Your task to perform on an android device: open app "Fetch Rewards" (install if not already installed), go to login, and select forgot password Image 0: 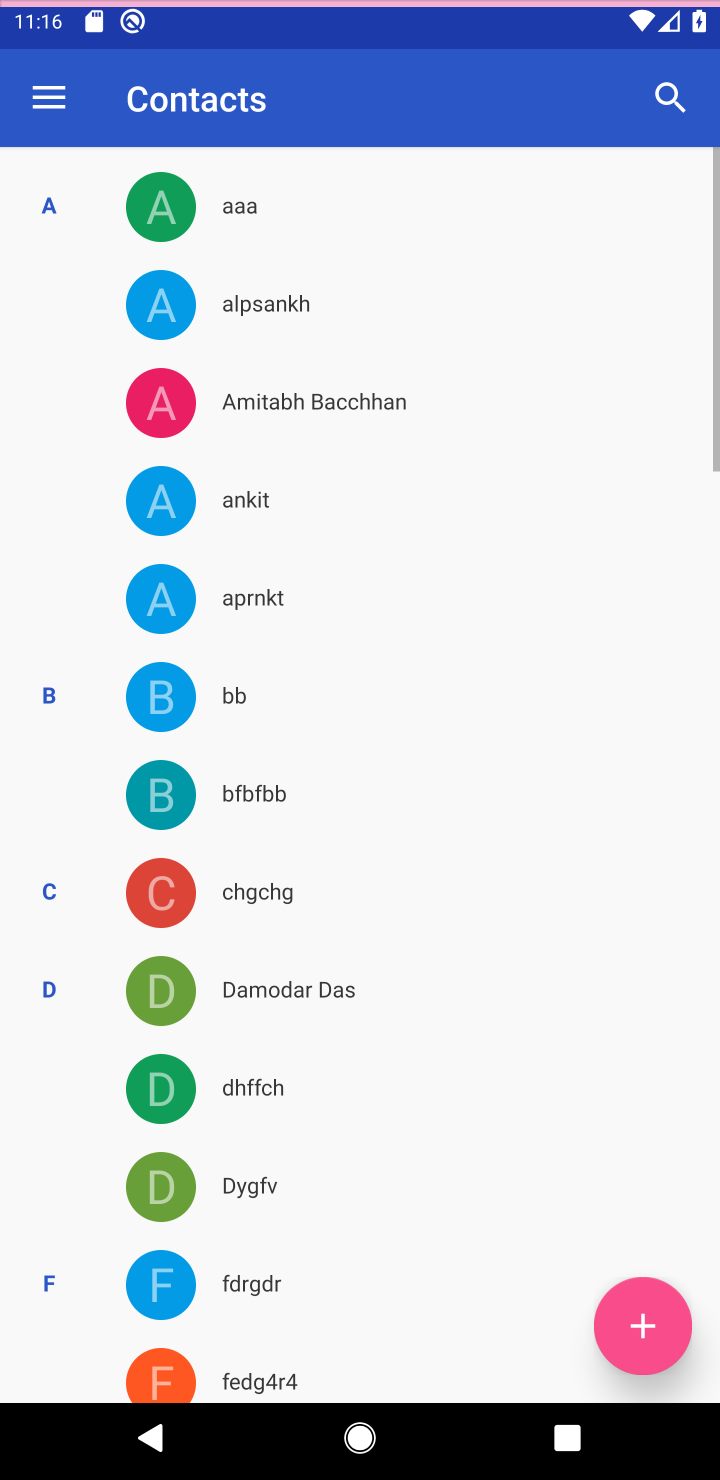
Step 0: press home button
Your task to perform on an android device: open app "Fetch Rewards" (install if not already installed), go to login, and select forgot password Image 1: 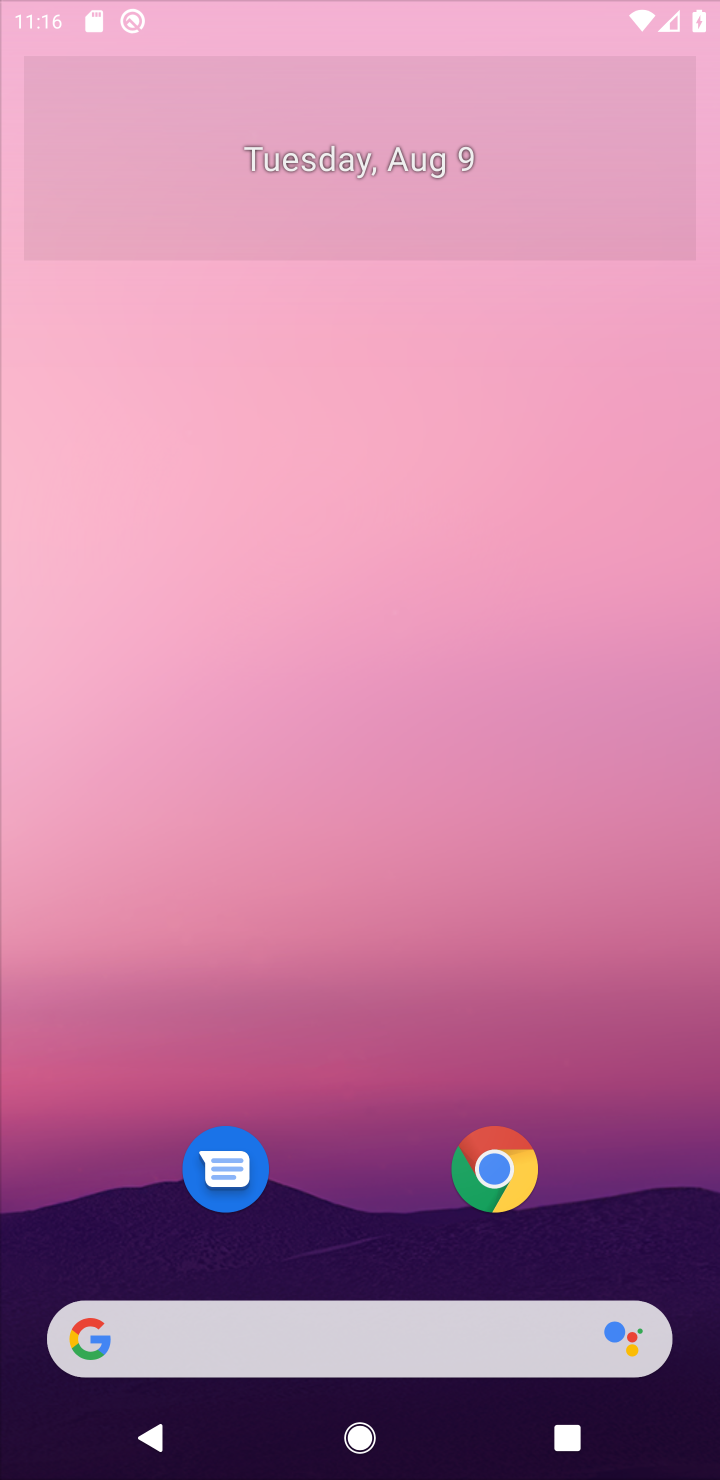
Step 1: press home button
Your task to perform on an android device: open app "Fetch Rewards" (install if not already installed), go to login, and select forgot password Image 2: 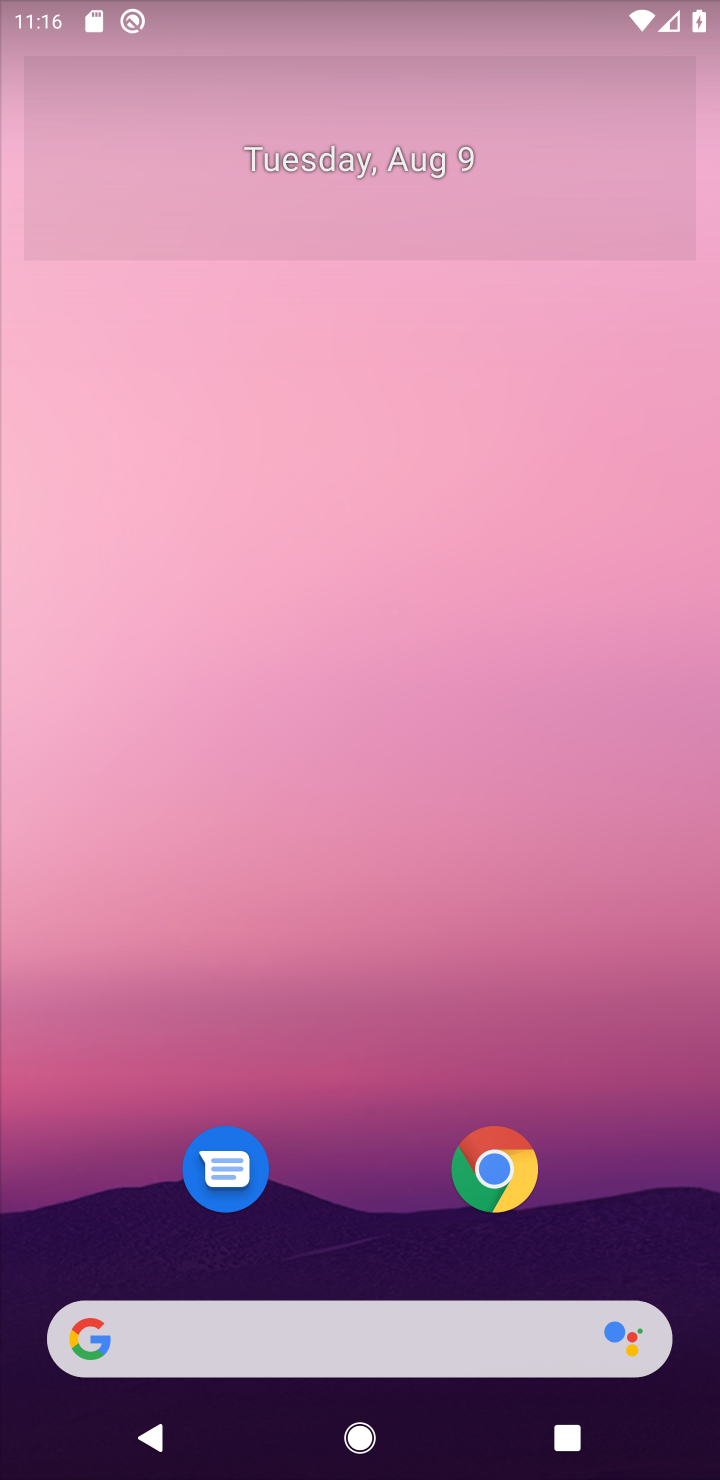
Step 2: drag from (625, 1107) to (625, 153)
Your task to perform on an android device: open app "Fetch Rewards" (install if not already installed), go to login, and select forgot password Image 3: 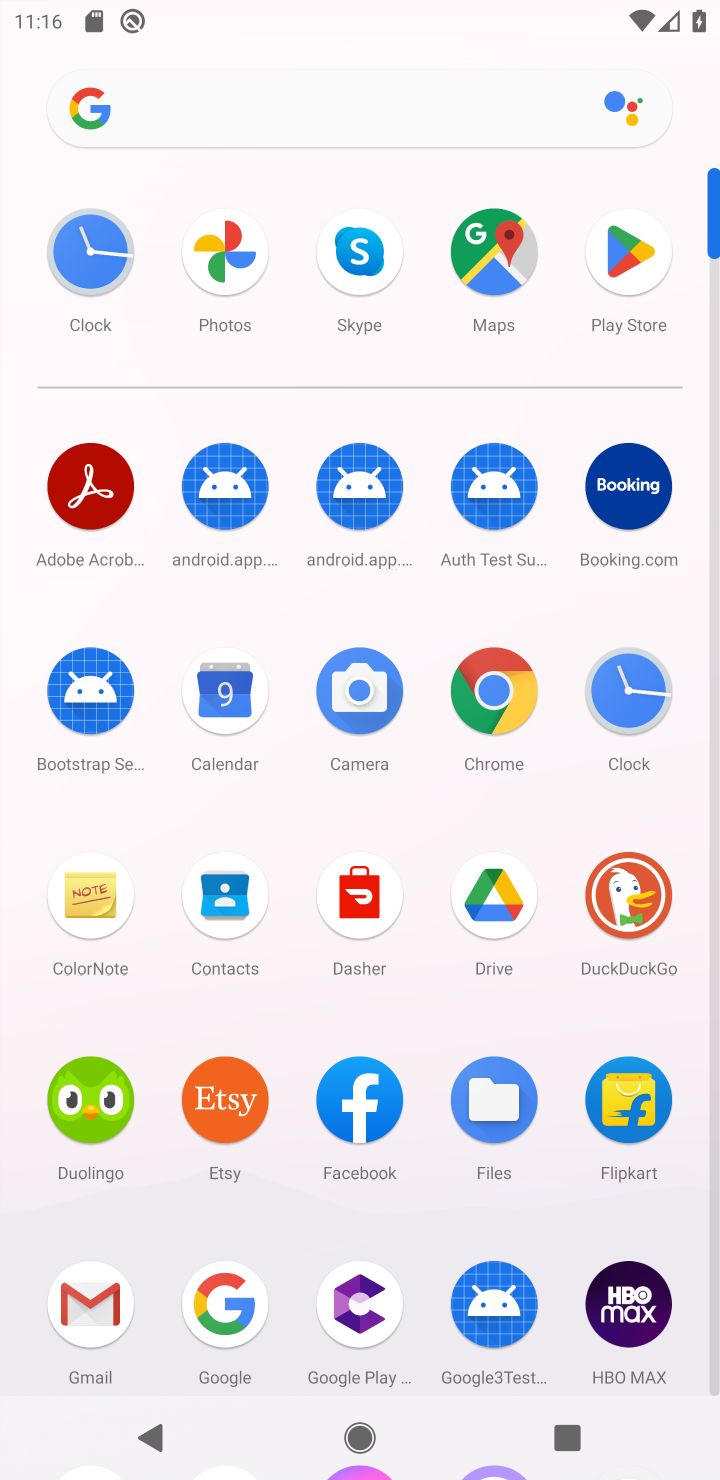
Step 3: click (636, 239)
Your task to perform on an android device: open app "Fetch Rewards" (install if not already installed), go to login, and select forgot password Image 4: 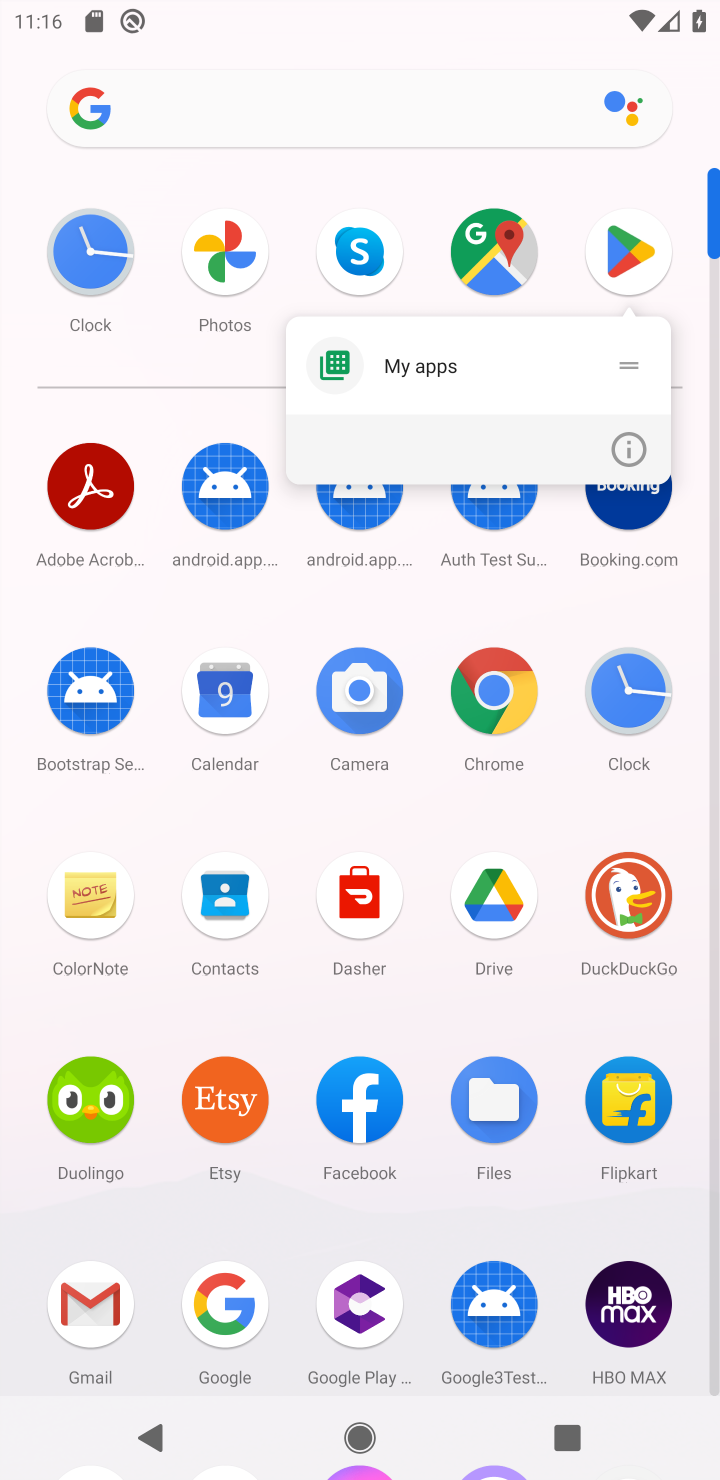
Step 4: click (624, 256)
Your task to perform on an android device: open app "Fetch Rewards" (install if not already installed), go to login, and select forgot password Image 5: 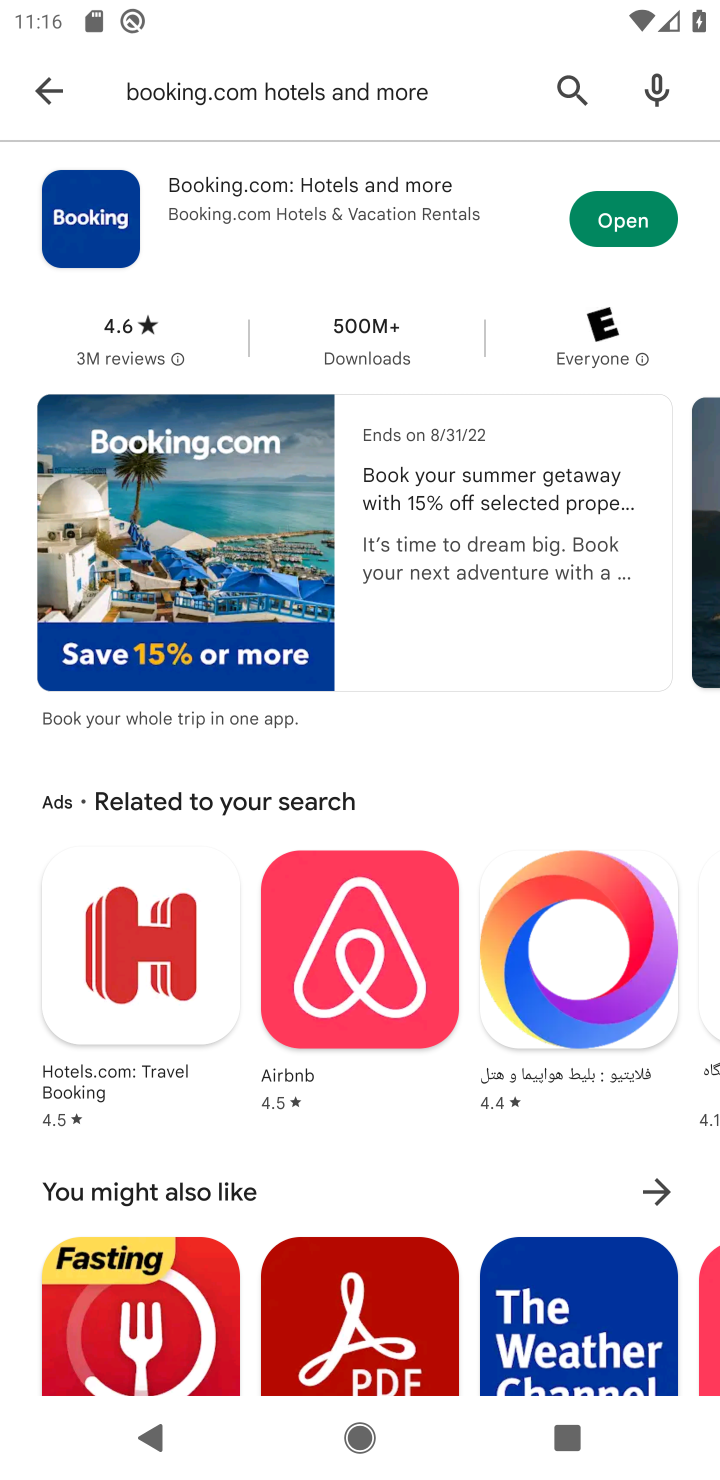
Step 5: click (580, 85)
Your task to perform on an android device: open app "Fetch Rewards" (install if not already installed), go to login, and select forgot password Image 6: 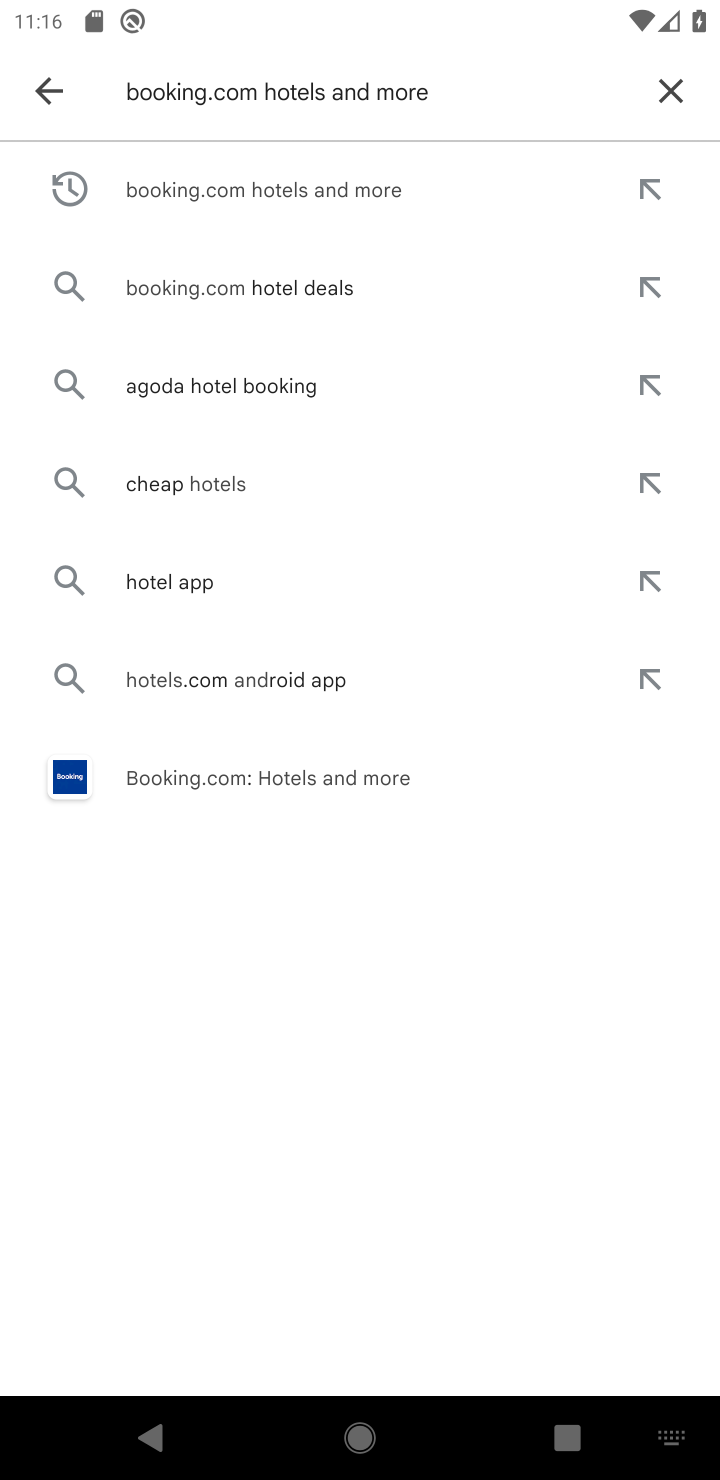
Step 6: click (669, 85)
Your task to perform on an android device: open app "Fetch Rewards" (install if not already installed), go to login, and select forgot password Image 7: 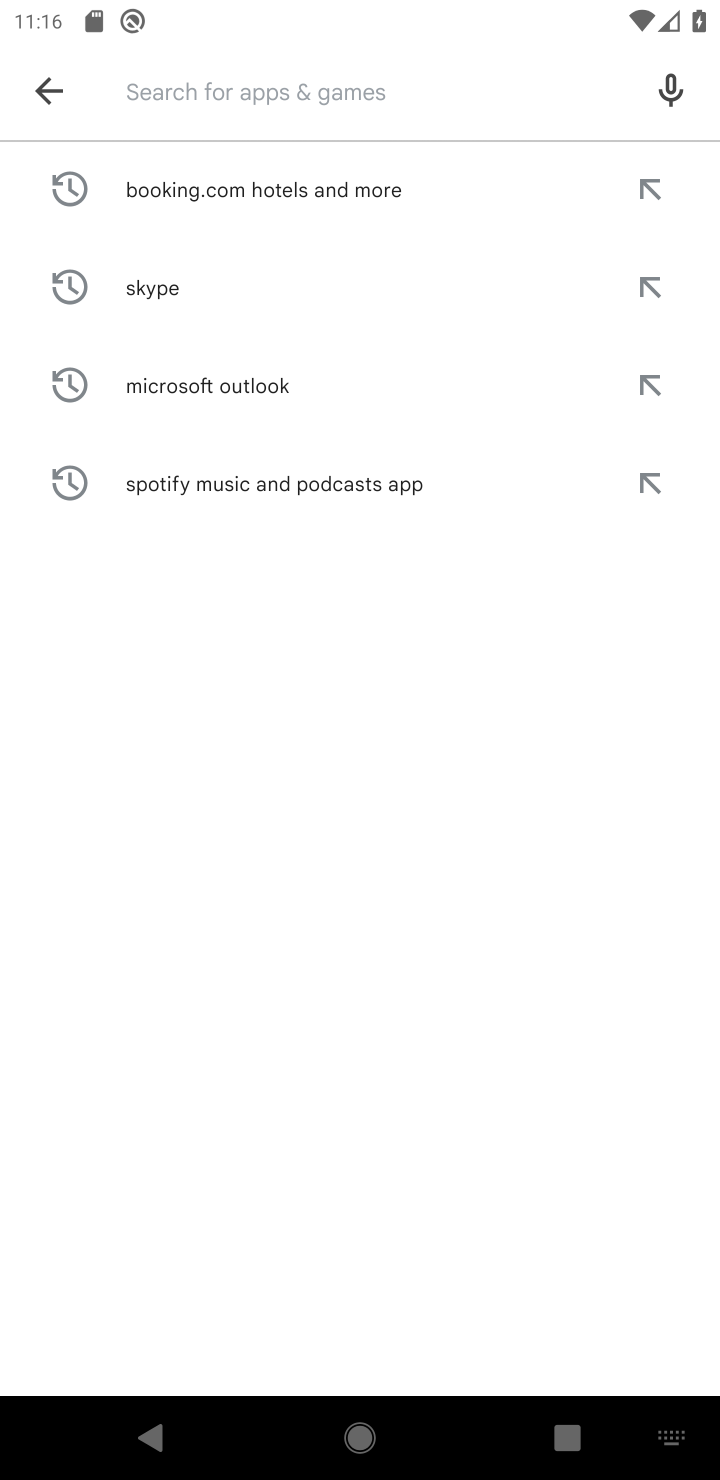
Step 7: type "fetch rewards"
Your task to perform on an android device: open app "Fetch Rewards" (install if not already installed), go to login, and select forgot password Image 8: 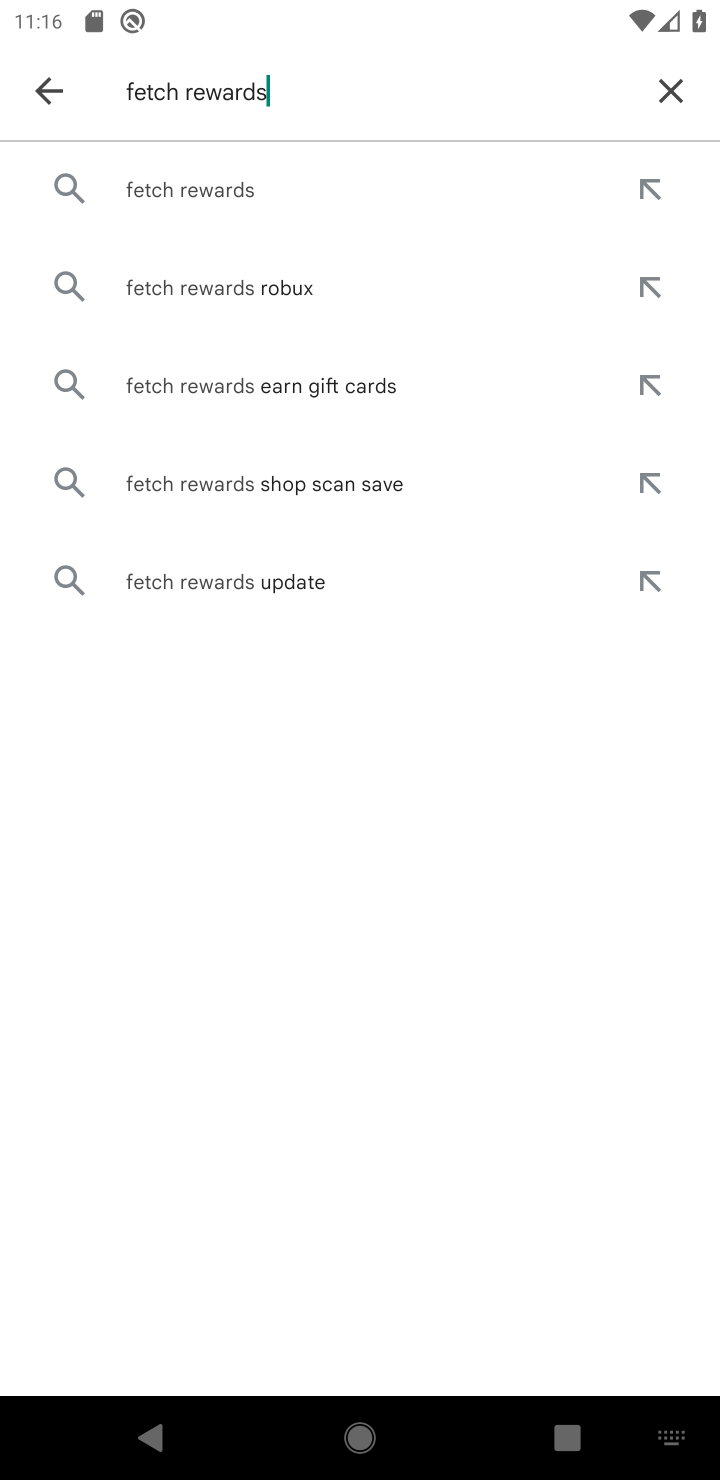
Step 8: click (259, 189)
Your task to perform on an android device: open app "Fetch Rewards" (install if not already installed), go to login, and select forgot password Image 9: 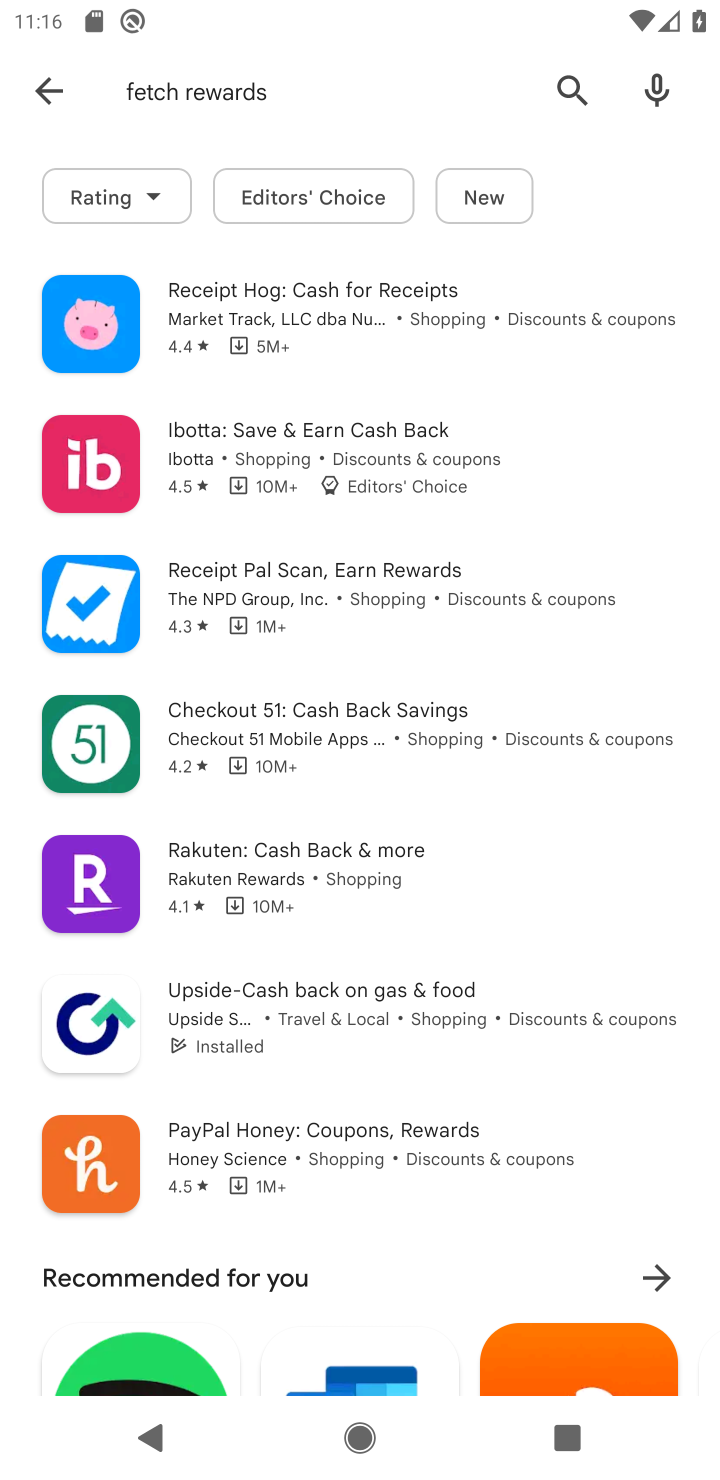
Step 9: task complete